Your task to perform on an android device: open a bookmark in the chrome app Image 0: 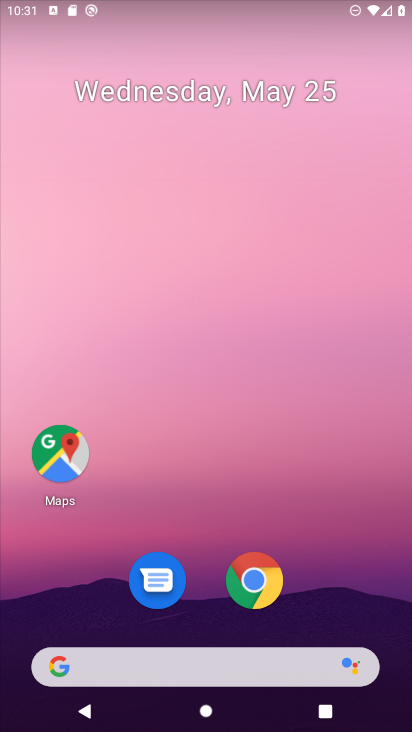
Step 0: press home button
Your task to perform on an android device: open a bookmark in the chrome app Image 1: 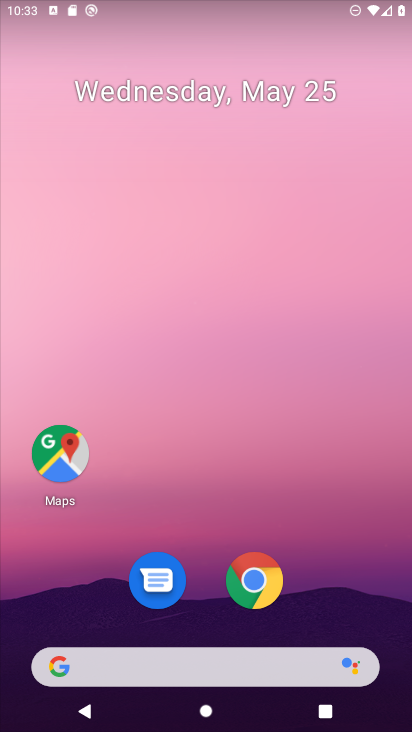
Step 1: click (260, 581)
Your task to perform on an android device: open a bookmark in the chrome app Image 2: 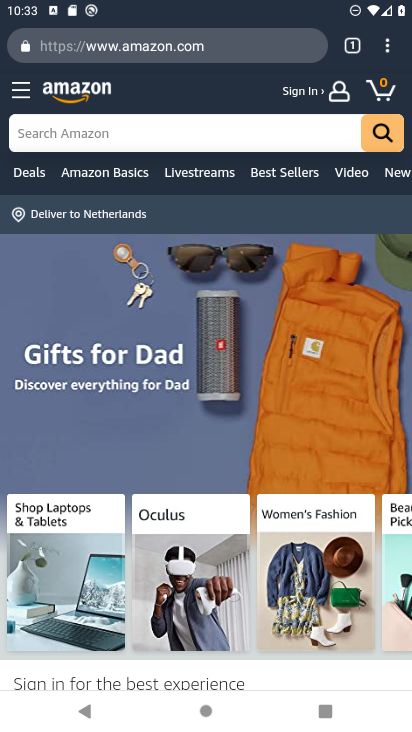
Step 2: click (387, 45)
Your task to perform on an android device: open a bookmark in the chrome app Image 3: 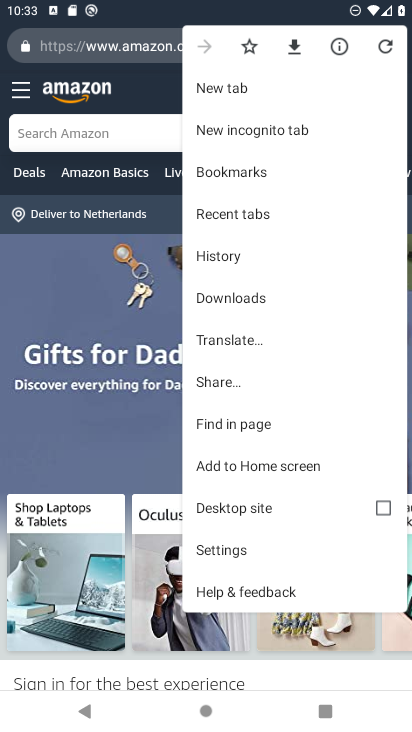
Step 3: click (225, 178)
Your task to perform on an android device: open a bookmark in the chrome app Image 4: 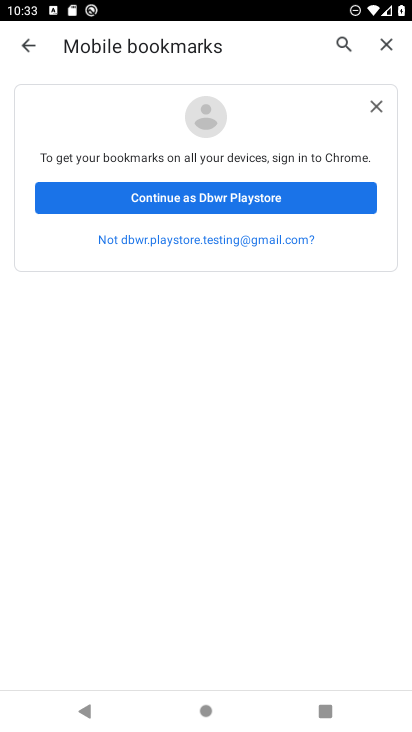
Step 4: click (371, 96)
Your task to perform on an android device: open a bookmark in the chrome app Image 5: 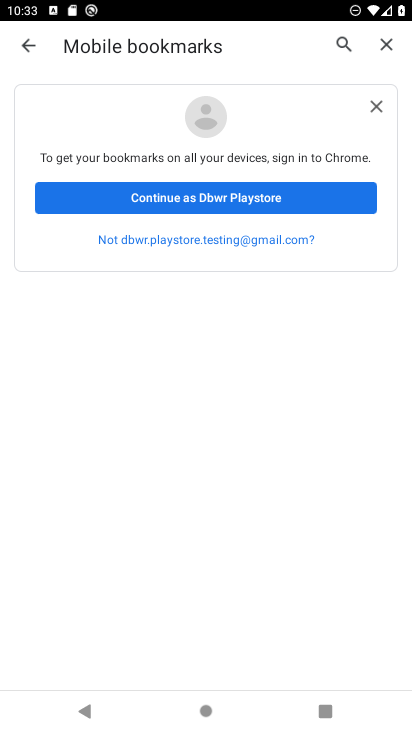
Step 5: click (370, 108)
Your task to perform on an android device: open a bookmark in the chrome app Image 6: 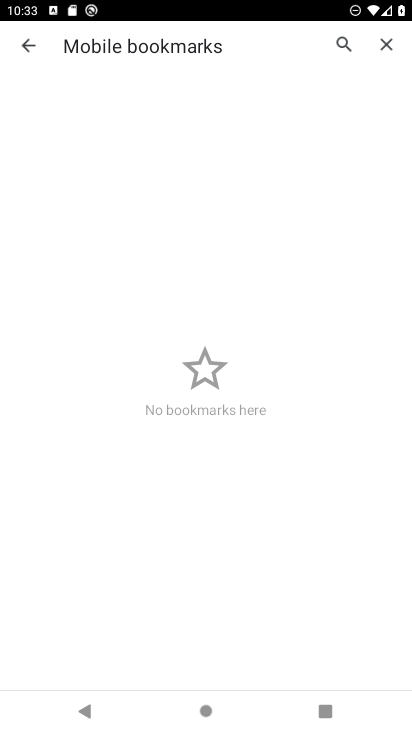
Step 6: task complete